Your task to perform on an android device: Search for acer predator on newegg, select the first entry, add it to the cart, then select checkout. Image 0: 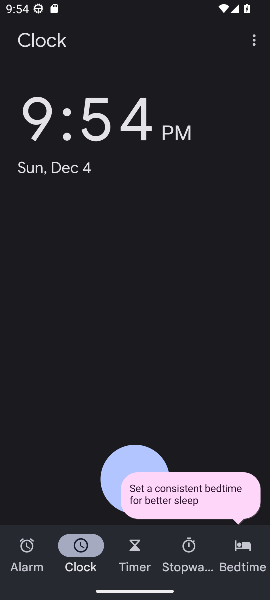
Step 0: press home button
Your task to perform on an android device: Search for acer predator on newegg, select the first entry, add it to the cart, then select checkout. Image 1: 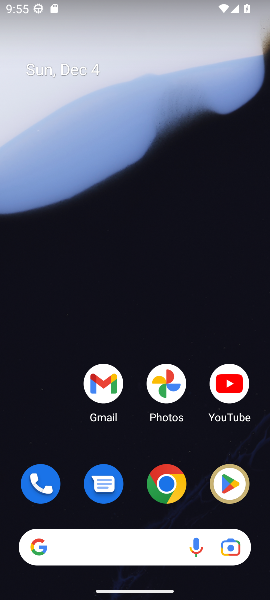
Step 1: click (178, 490)
Your task to perform on an android device: Search for acer predator on newegg, select the first entry, add it to the cart, then select checkout. Image 2: 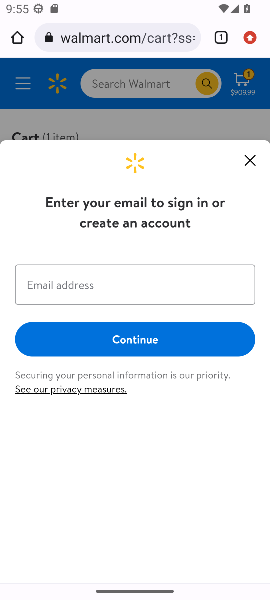
Step 2: click (117, 40)
Your task to perform on an android device: Search for acer predator on newegg, select the first entry, add it to the cart, then select checkout. Image 3: 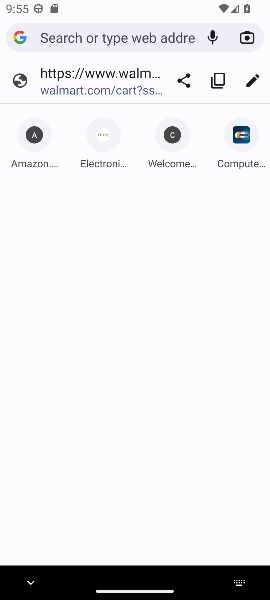
Step 3: click (249, 157)
Your task to perform on an android device: Search for acer predator on newegg, select the first entry, add it to the cart, then select checkout. Image 4: 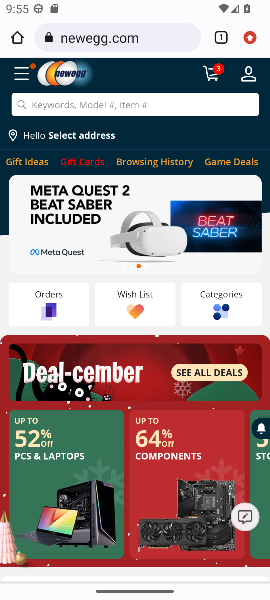
Step 4: click (69, 104)
Your task to perform on an android device: Search for acer predator on newegg, select the first entry, add it to the cart, then select checkout. Image 5: 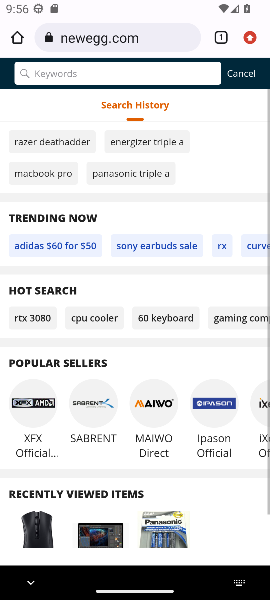
Step 5: type "acer predator"
Your task to perform on an android device: Search for acer predator on newegg, select the first entry, add it to the cart, then select checkout. Image 6: 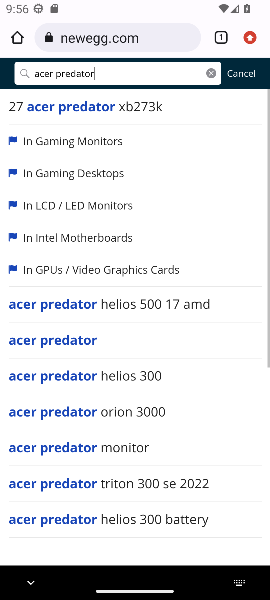
Step 6: click (57, 341)
Your task to perform on an android device: Search for acer predator on newegg, select the first entry, add it to the cart, then select checkout. Image 7: 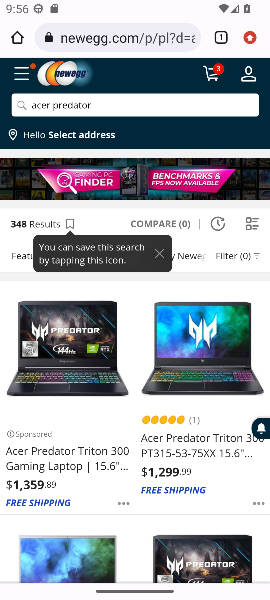
Step 7: click (48, 451)
Your task to perform on an android device: Search for acer predator on newegg, select the first entry, add it to the cart, then select checkout. Image 8: 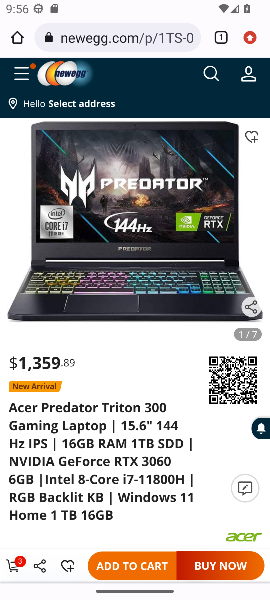
Step 8: click (122, 565)
Your task to perform on an android device: Search for acer predator on newegg, select the first entry, add it to the cart, then select checkout. Image 9: 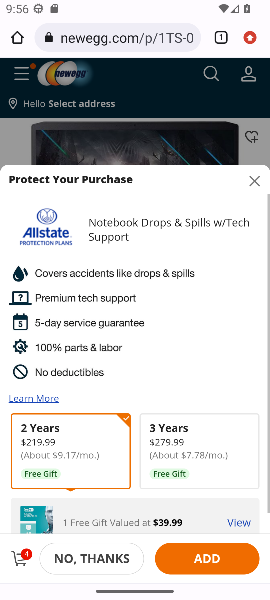
Step 9: click (25, 556)
Your task to perform on an android device: Search for acer predator on newegg, select the first entry, add it to the cart, then select checkout. Image 10: 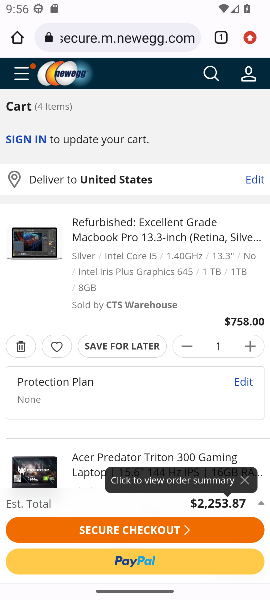
Step 10: click (79, 550)
Your task to perform on an android device: Search for acer predator on newegg, select the first entry, add it to the cart, then select checkout. Image 11: 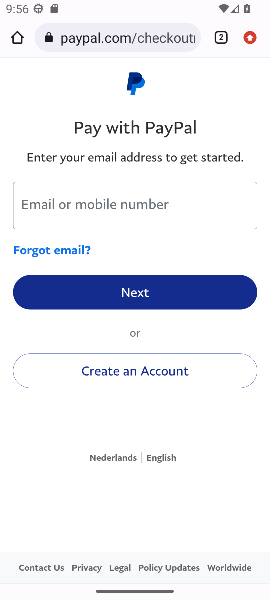
Step 11: task complete